Your task to perform on an android device: turn off notifications in google photos Image 0: 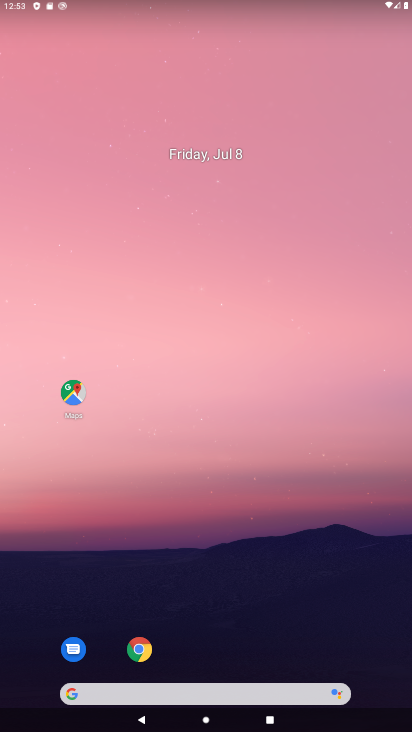
Step 0: click (94, 689)
Your task to perform on an android device: turn off notifications in google photos Image 1: 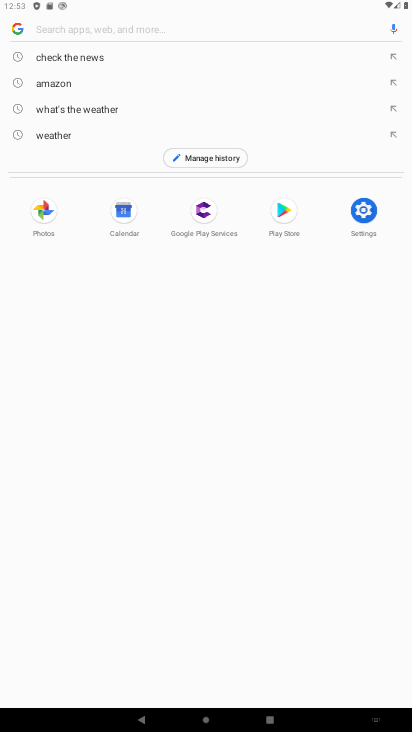
Step 1: press home button
Your task to perform on an android device: turn off notifications in google photos Image 2: 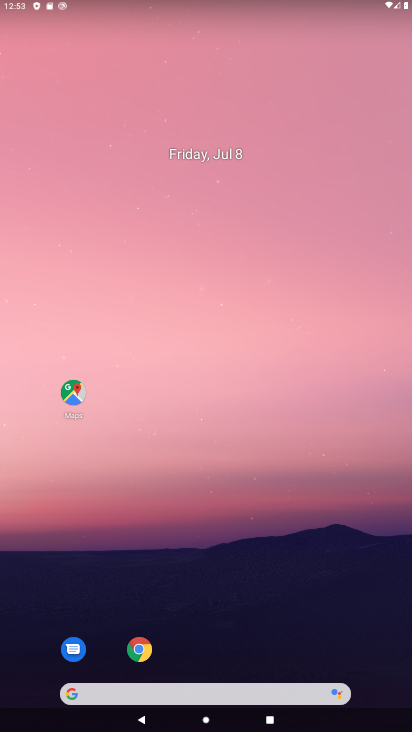
Step 2: drag from (40, 656) to (379, 510)
Your task to perform on an android device: turn off notifications in google photos Image 3: 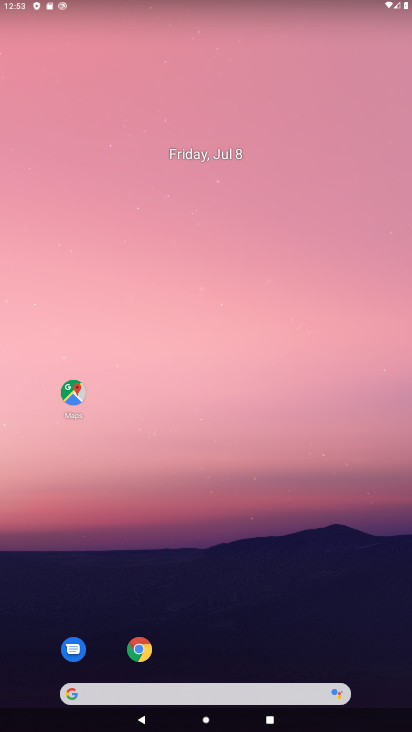
Step 3: drag from (52, 636) to (226, 112)
Your task to perform on an android device: turn off notifications in google photos Image 4: 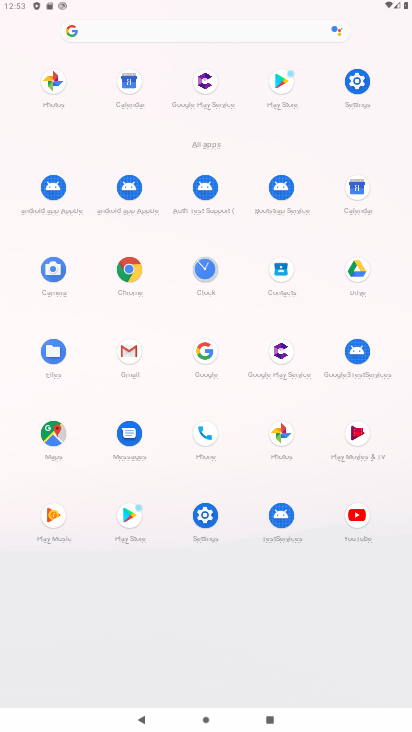
Step 4: click (281, 444)
Your task to perform on an android device: turn off notifications in google photos Image 5: 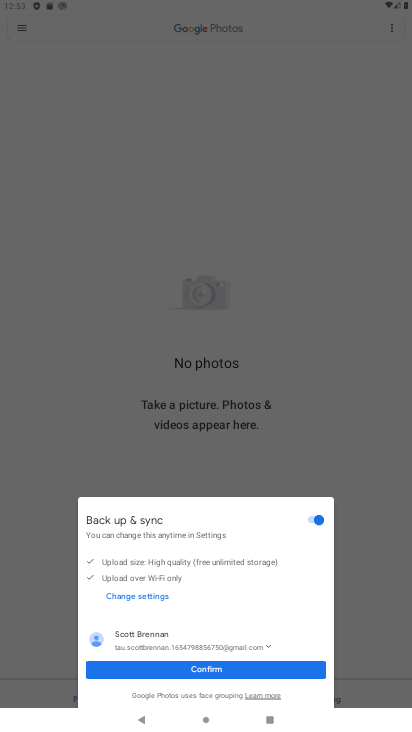
Step 5: click (219, 671)
Your task to perform on an android device: turn off notifications in google photos Image 6: 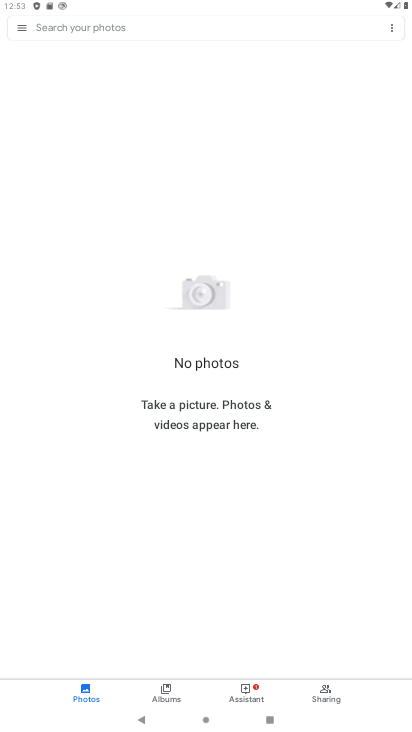
Step 6: click (27, 22)
Your task to perform on an android device: turn off notifications in google photos Image 7: 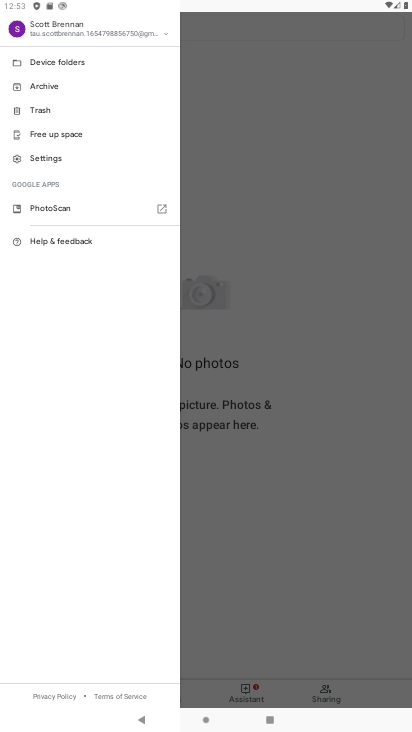
Step 7: click (48, 155)
Your task to perform on an android device: turn off notifications in google photos Image 8: 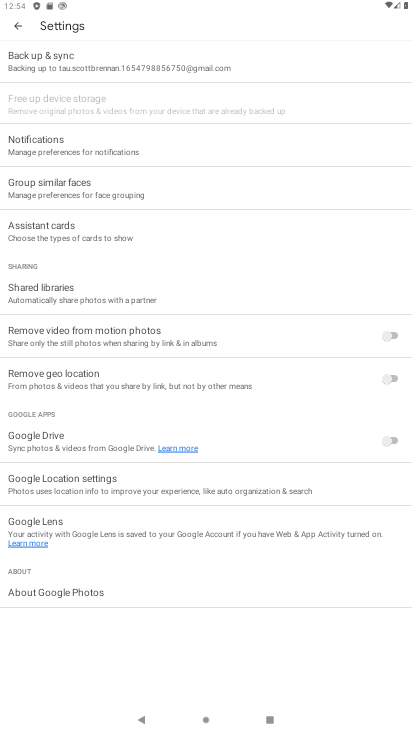
Step 8: click (44, 138)
Your task to perform on an android device: turn off notifications in google photos Image 9: 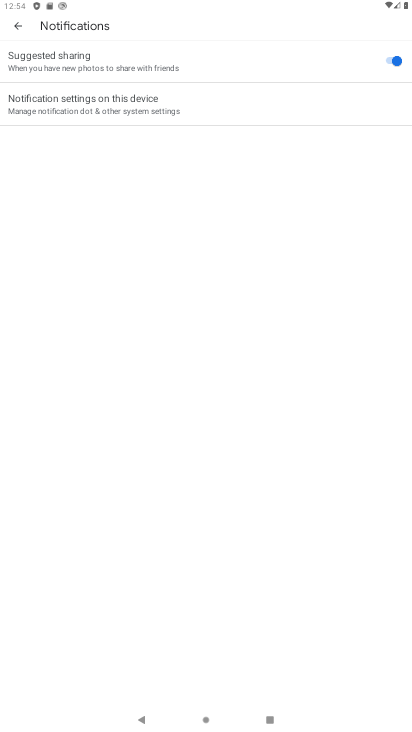
Step 9: click (143, 103)
Your task to perform on an android device: turn off notifications in google photos Image 10: 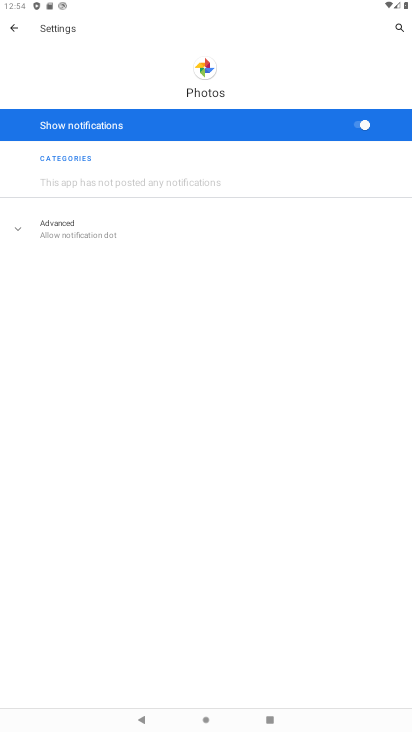
Step 10: click (368, 125)
Your task to perform on an android device: turn off notifications in google photos Image 11: 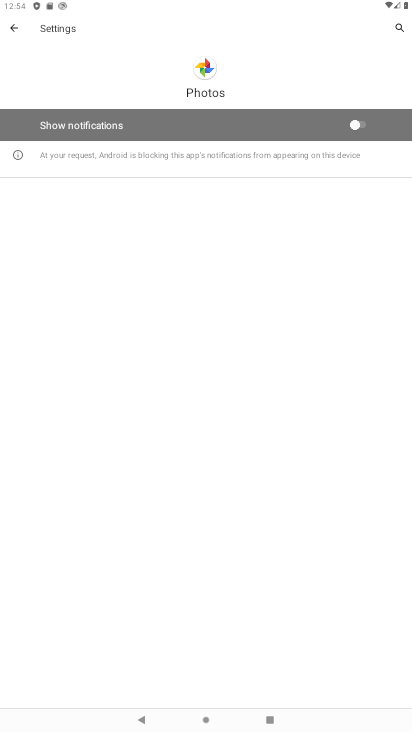
Step 11: task complete